Your task to perform on an android device: search for starred emails in the gmail app Image 0: 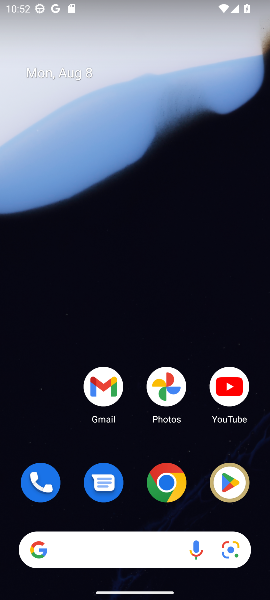
Step 0: click (99, 390)
Your task to perform on an android device: search for starred emails in the gmail app Image 1: 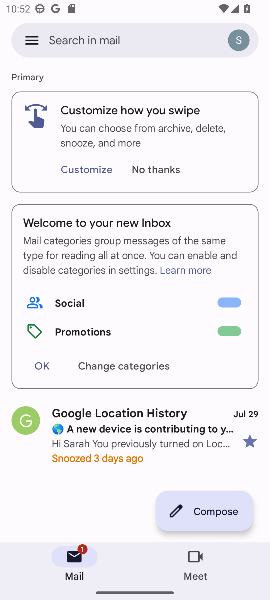
Step 1: click (27, 39)
Your task to perform on an android device: search for starred emails in the gmail app Image 2: 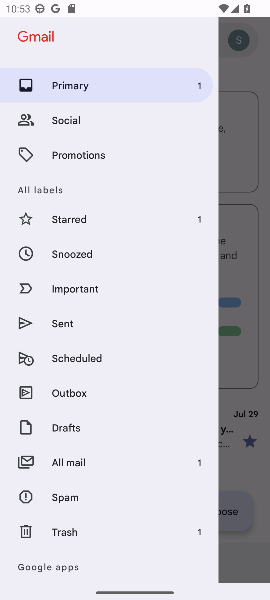
Step 2: click (102, 218)
Your task to perform on an android device: search for starred emails in the gmail app Image 3: 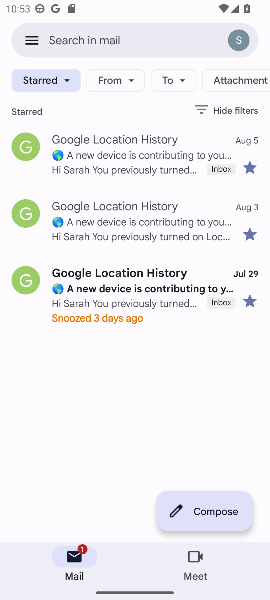
Step 3: task complete